Your task to perform on an android device: Go to network settings Image 0: 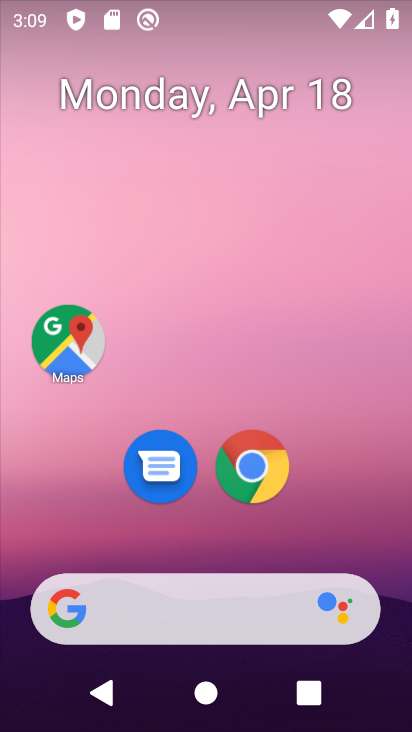
Step 0: drag from (365, 533) to (289, 113)
Your task to perform on an android device: Go to network settings Image 1: 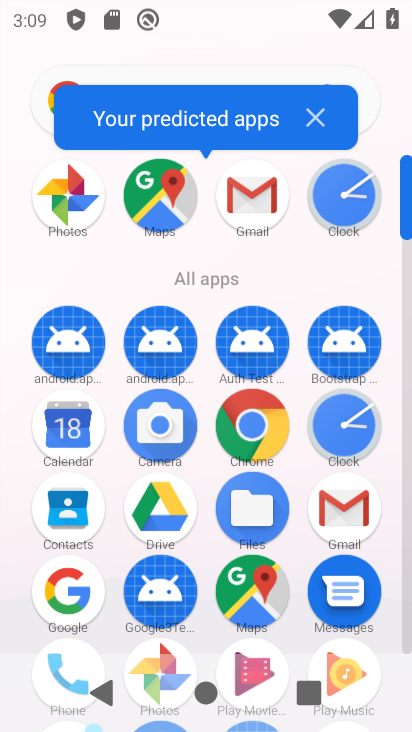
Step 1: drag from (407, 195) to (411, 357)
Your task to perform on an android device: Go to network settings Image 2: 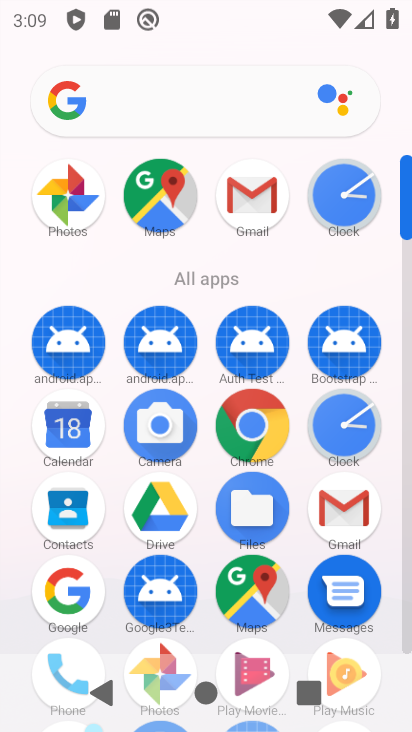
Step 2: drag from (408, 234) to (408, 437)
Your task to perform on an android device: Go to network settings Image 3: 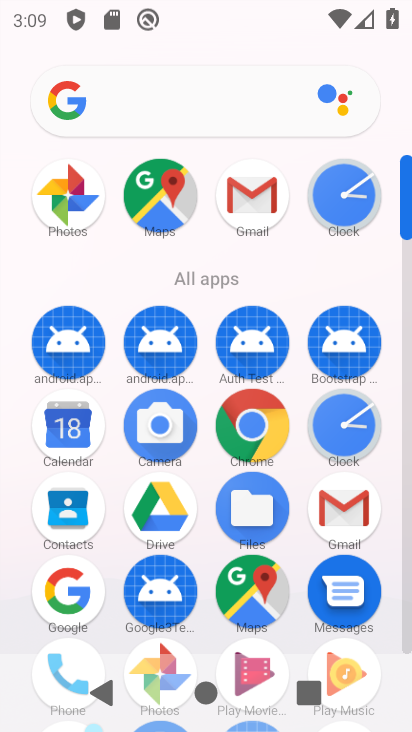
Step 3: click (408, 437)
Your task to perform on an android device: Go to network settings Image 4: 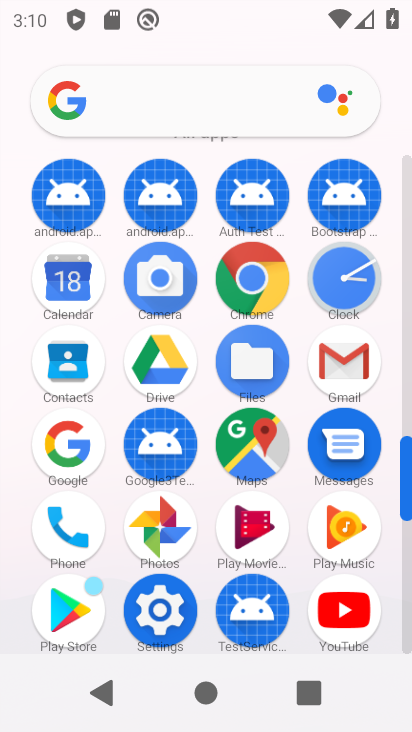
Step 4: click (169, 596)
Your task to perform on an android device: Go to network settings Image 5: 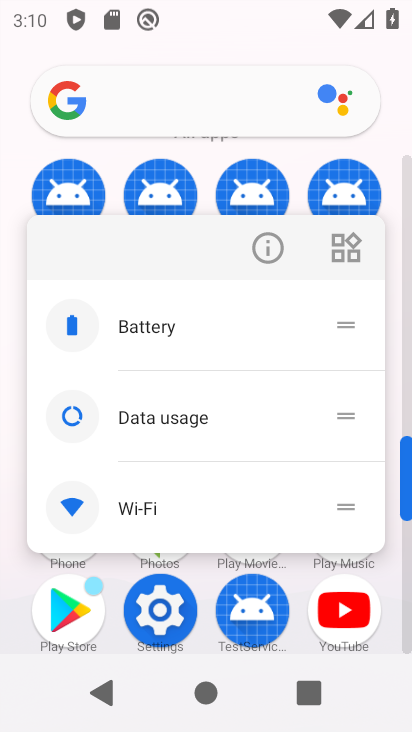
Step 5: click (143, 610)
Your task to perform on an android device: Go to network settings Image 6: 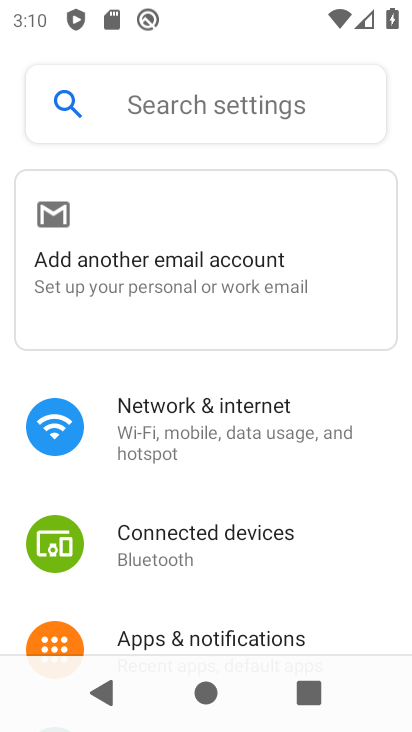
Step 6: click (175, 410)
Your task to perform on an android device: Go to network settings Image 7: 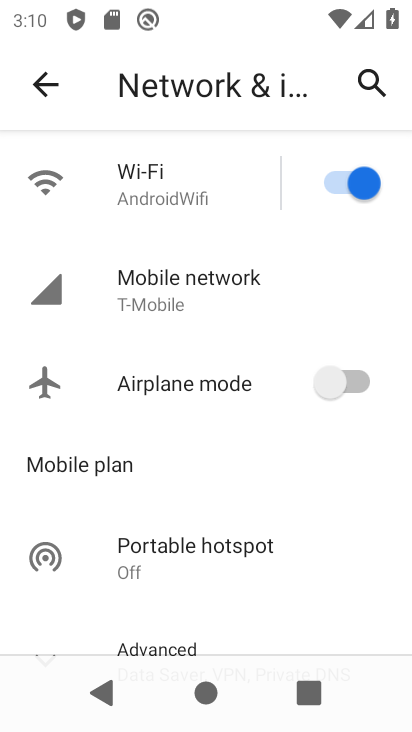
Step 7: click (232, 312)
Your task to perform on an android device: Go to network settings Image 8: 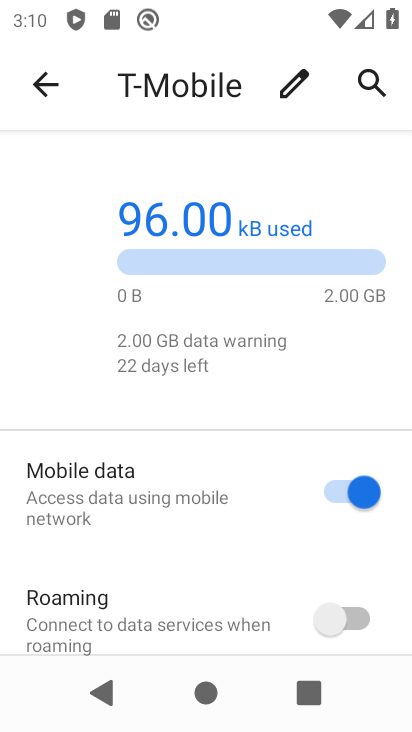
Step 8: task complete